Your task to perform on an android device: Do I have any events tomorrow? Image 0: 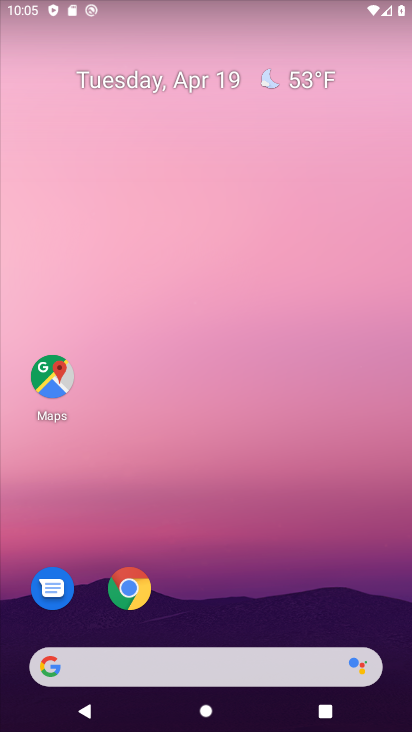
Step 0: drag from (239, 655) to (193, 204)
Your task to perform on an android device: Do I have any events tomorrow? Image 1: 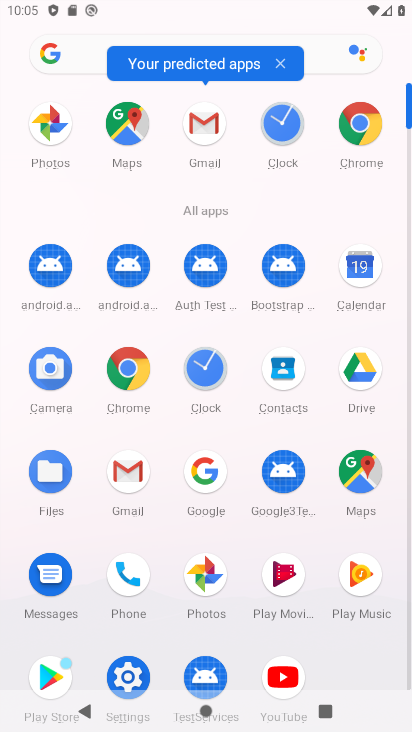
Step 1: click (373, 263)
Your task to perform on an android device: Do I have any events tomorrow? Image 2: 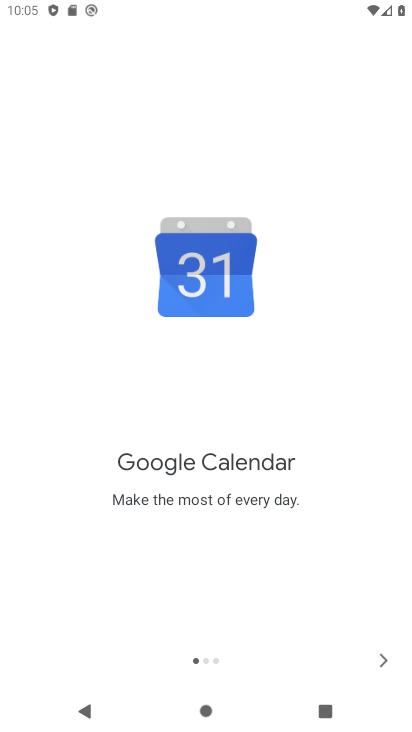
Step 2: click (388, 665)
Your task to perform on an android device: Do I have any events tomorrow? Image 3: 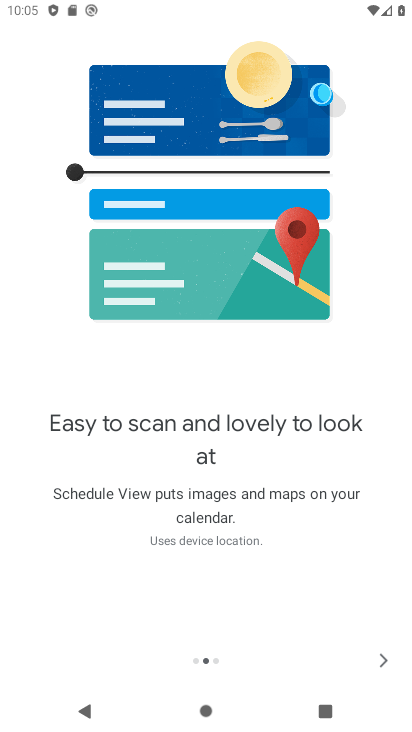
Step 3: click (374, 668)
Your task to perform on an android device: Do I have any events tomorrow? Image 4: 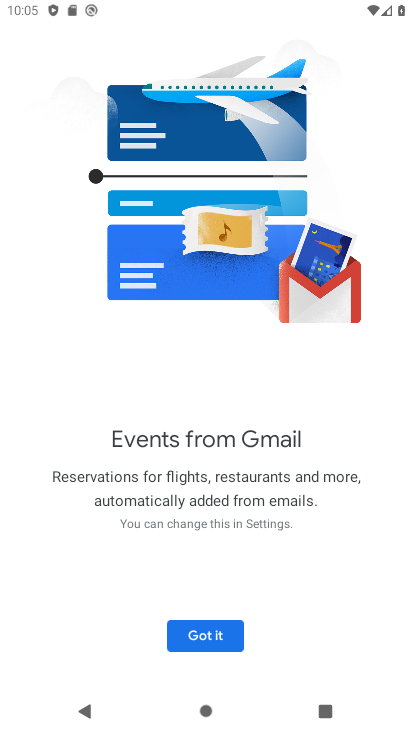
Step 4: click (177, 638)
Your task to perform on an android device: Do I have any events tomorrow? Image 5: 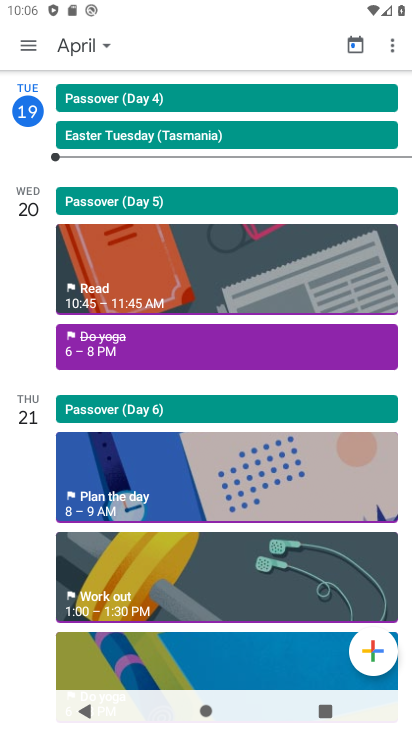
Step 5: task complete